Your task to perform on an android device: remove spam from my inbox in the gmail app Image 0: 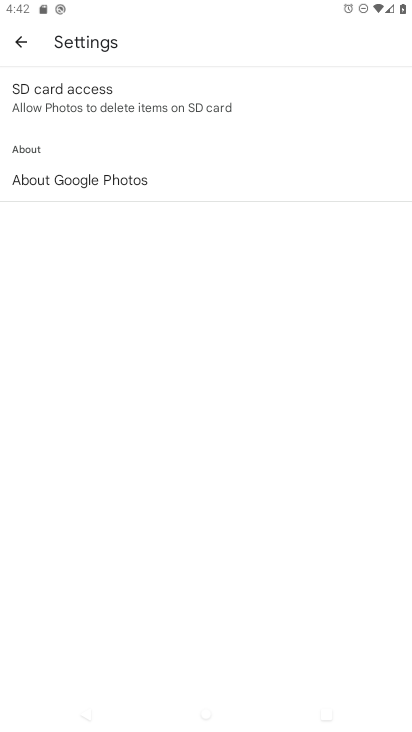
Step 0: press home button
Your task to perform on an android device: remove spam from my inbox in the gmail app Image 1: 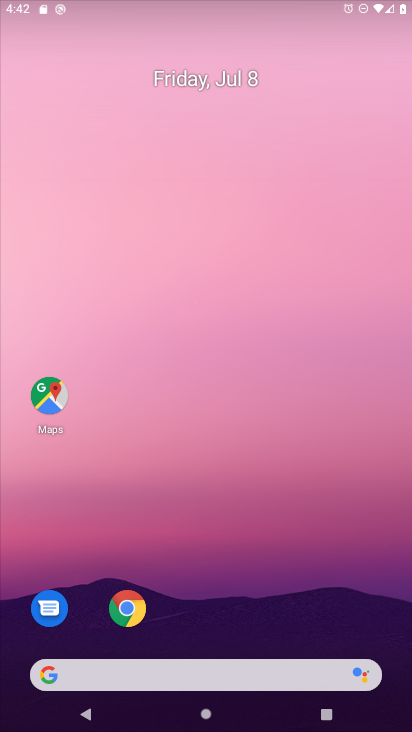
Step 1: drag from (335, 646) to (396, 15)
Your task to perform on an android device: remove spam from my inbox in the gmail app Image 2: 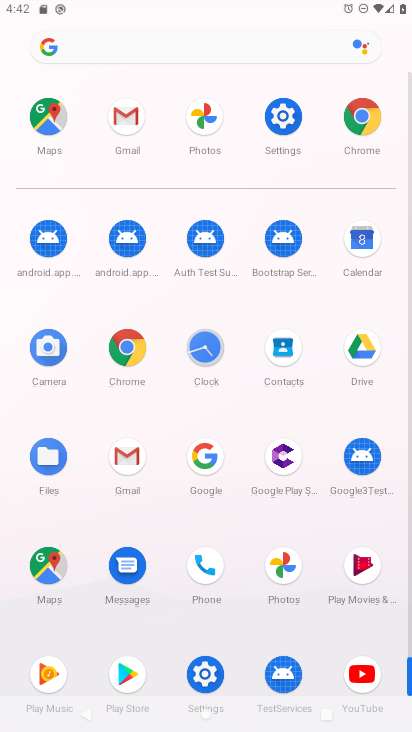
Step 2: click (135, 455)
Your task to perform on an android device: remove spam from my inbox in the gmail app Image 3: 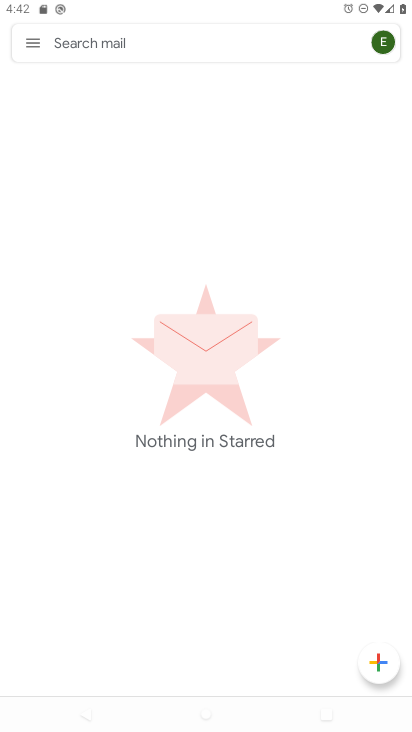
Step 3: click (39, 40)
Your task to perform on an android device: remove spam from my inbox in the gmail app Image 4: 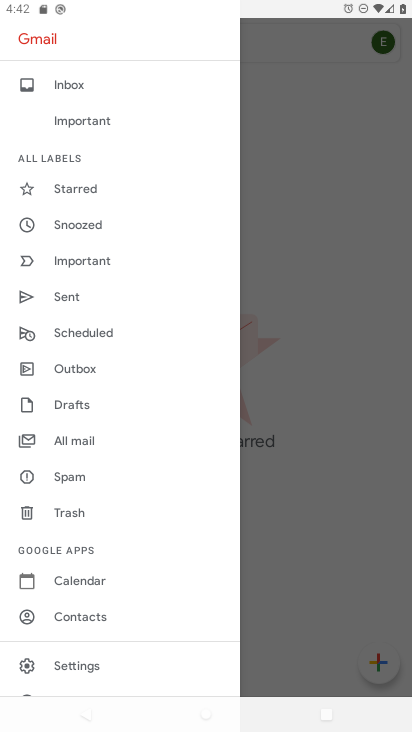
Step 4: click (76, 665)
Your task to perform on an android device: remove spam from my inbox in the gmail app Image 5: 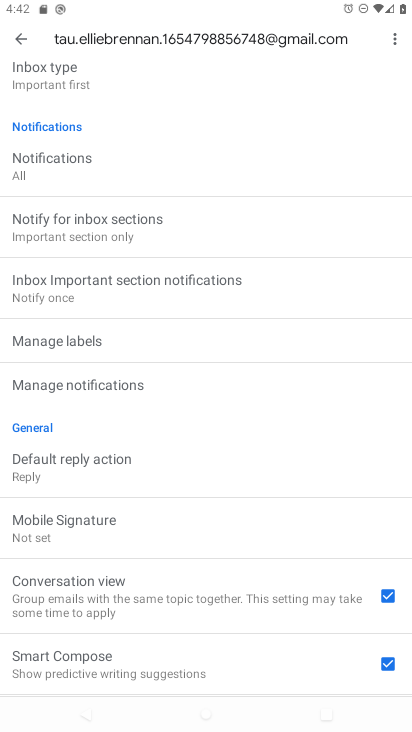
Step 5: press back button
Your task to perform on an android device: remove spam from my inbox in the gmail app Image 6: 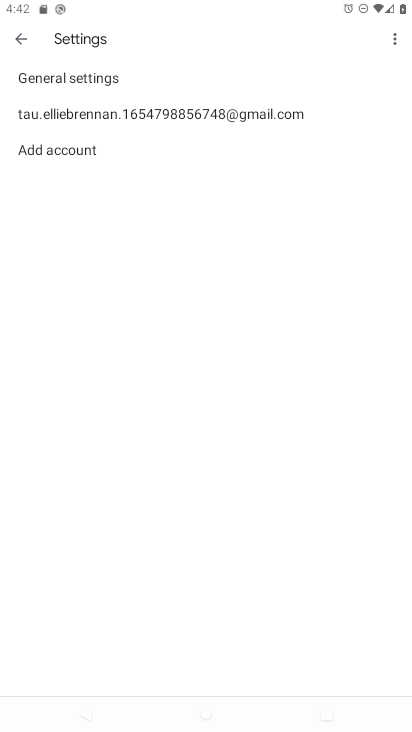
Step 6: press back button
Your task to perform on an android device: remove spam from my inbox in the gmail app Image 7: 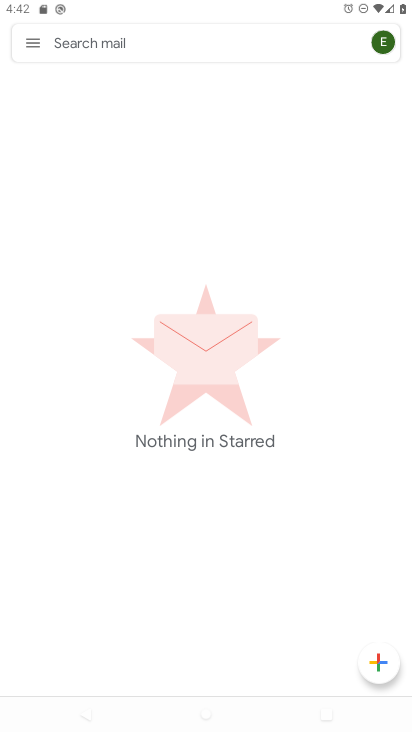
Step 7: click (32, 39)
Your task to perform on an android device: remove spam from my inbox in the gmail app Image 8: 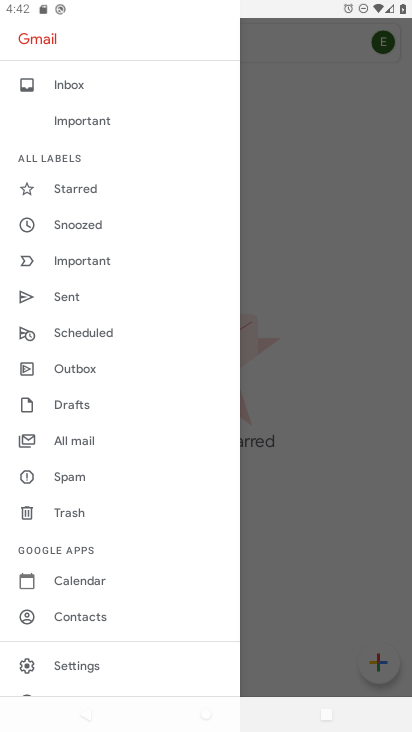
Step 8: click (69, 469)
Your task to perform on an android device: remove spam from my inbox in the gmail app Image 9: 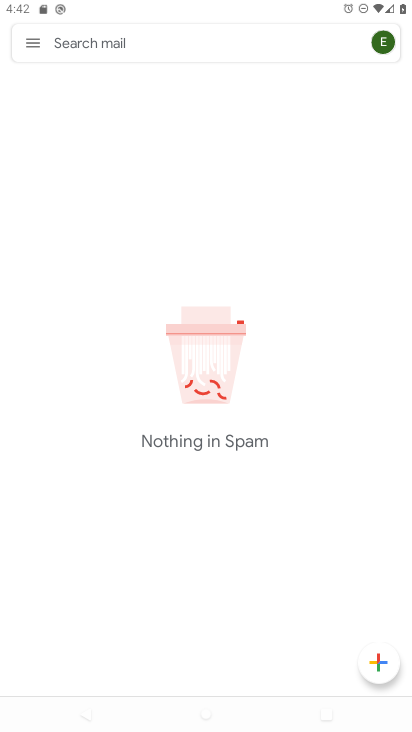
Step 9: task complete